Your task to perform on an android device: What's on my calendar today? Image 0: 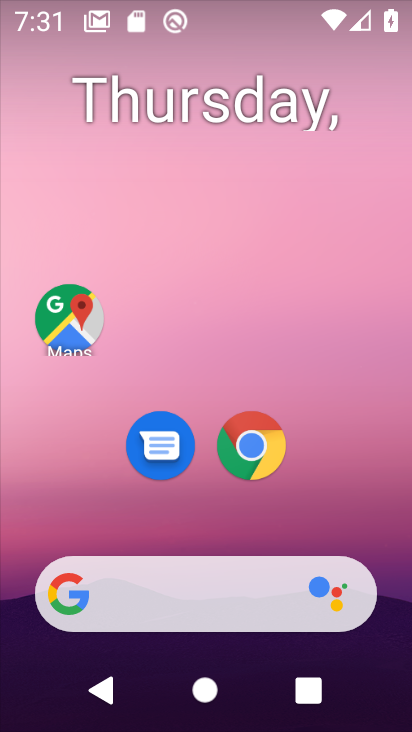
Step 0: drag from (219, 544) to (280, 188)
Your task to perform on an android device: What's on my calendar today? Image 1: 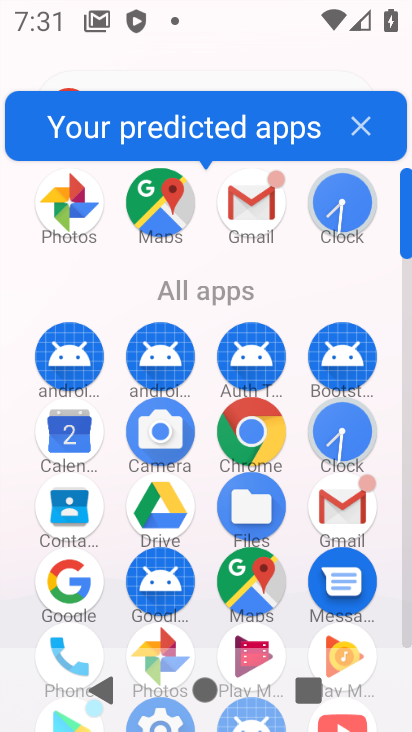
Step 1: click (73, 434)
Your task to perform on an android device: What's on my calendar today? Image 2: 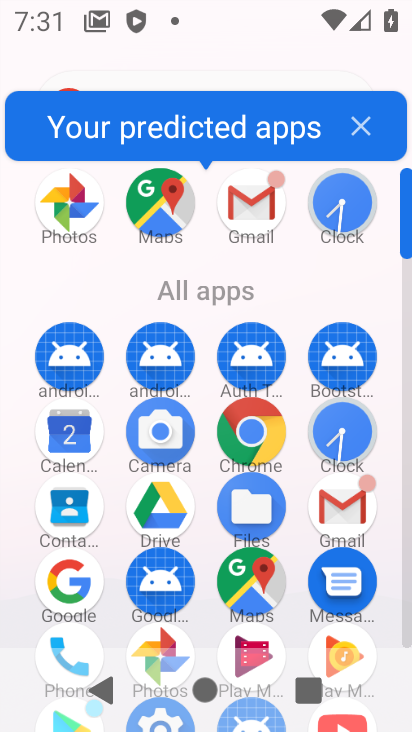
Step 2: click (73, 434)
Your task to perform on an android device: What's on my calendar today? Image 3: 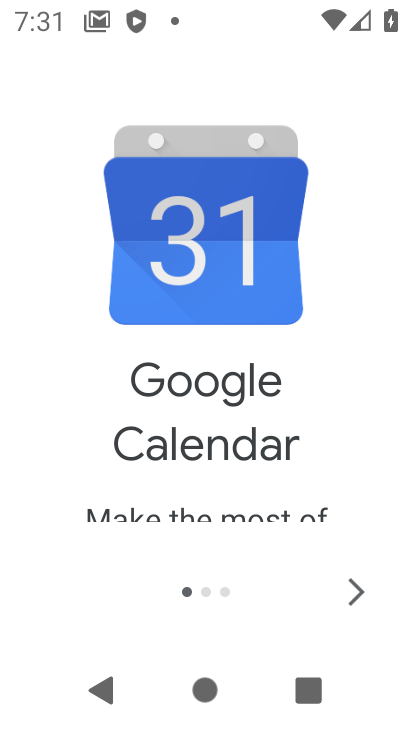
Step 3: click (351, 592)
Your task to perform on an android device: What's on my calendar today? Image 4: 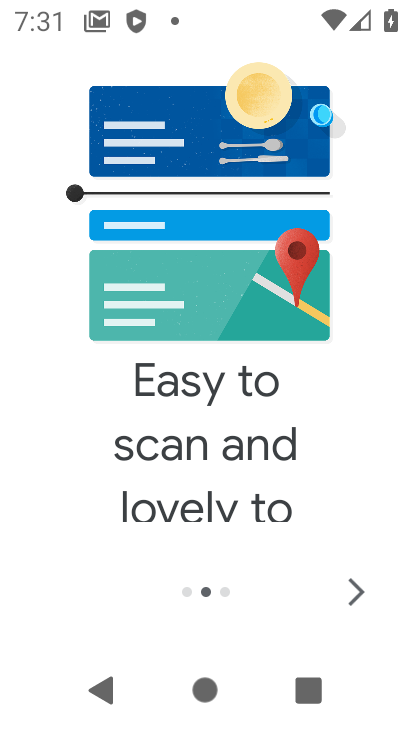
Step 4: click (351, 592)
Your task to perform on an android device: What's on my calendar today? Image 5: 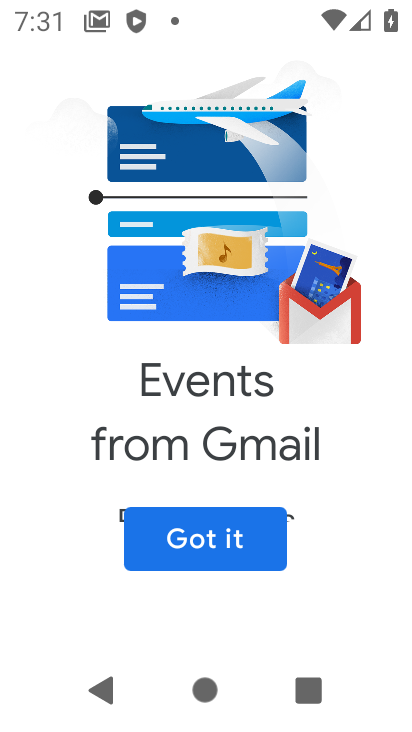
Step 5: click (351, 592)
Your task to perform on an android device: What's on my calendar today? Image 6: 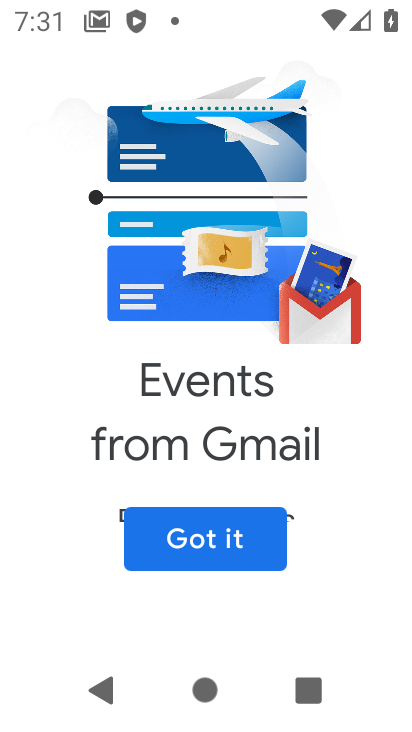
Step 6: click (250, 539)
Your task to perform on an android device: What's on my calendar today? Image 7: 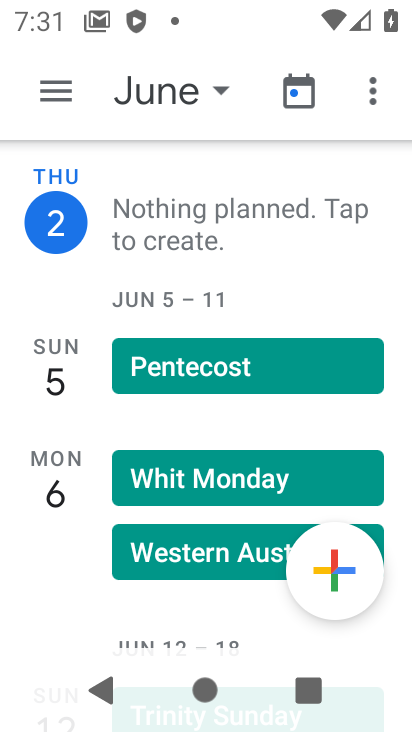
Step 7: click (250, 539)
Your task to perform on an android device: What's on my calendar today? Image 8: 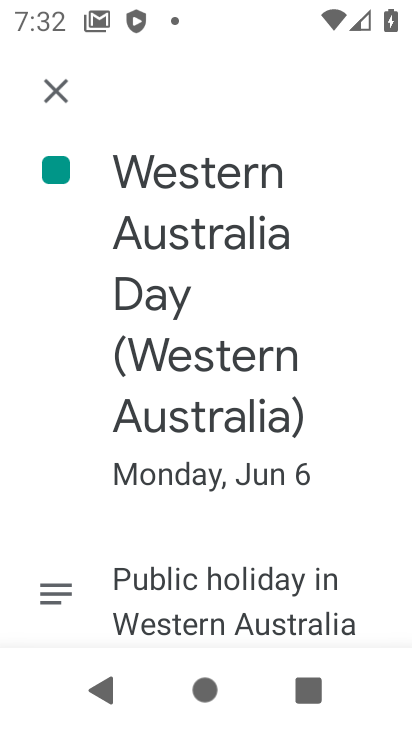
Step 8: task complete